Your task to perform on an android device: Open the calendar and show me this week's events Image 0: 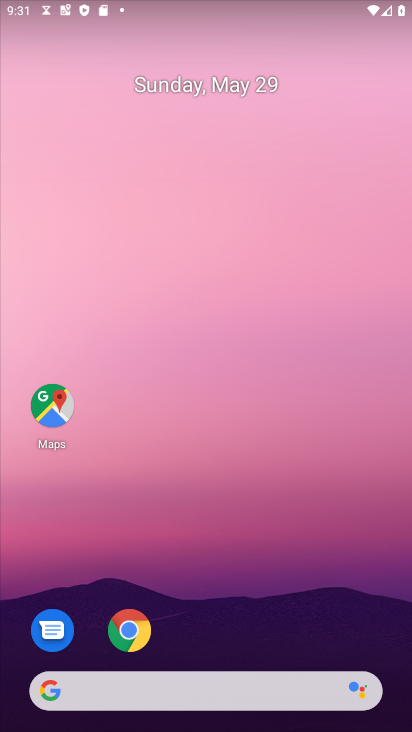
Step 0: click (204, 83)
Your task to perform on an android device: Open the calendar and show me this week's events Image 1: 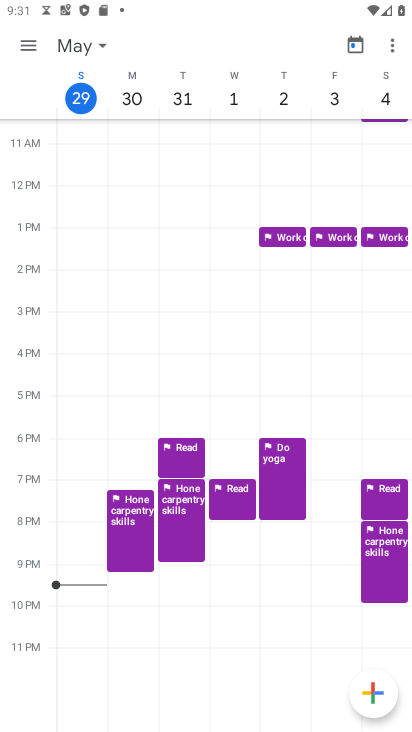
Step 1: task complete